Your task to perform on an android device: Go to battery settings Image 0: 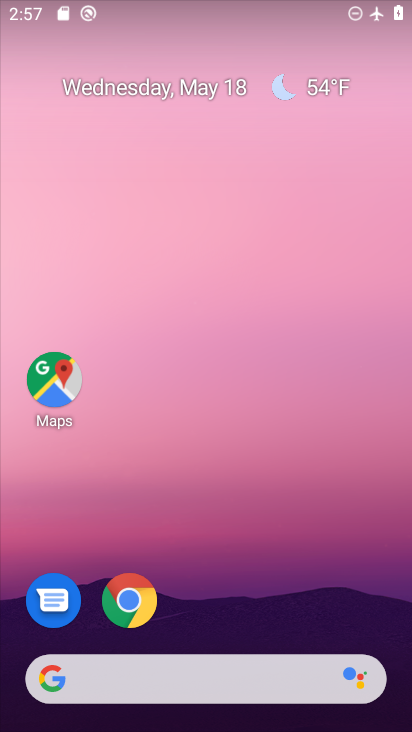
Step 0: drag from (244, 600) to (279, 11)
Your task to perform on an android device: Go to battery settings Image 1: 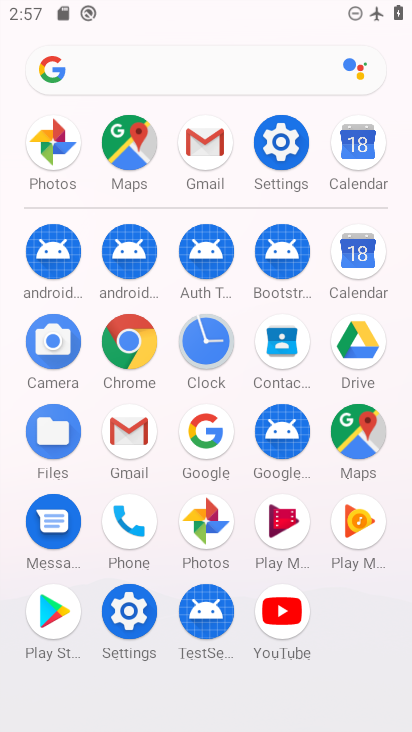
Step 1: click (283, 157)
Your task to perform on an android device: Go to battery settings Image 2: 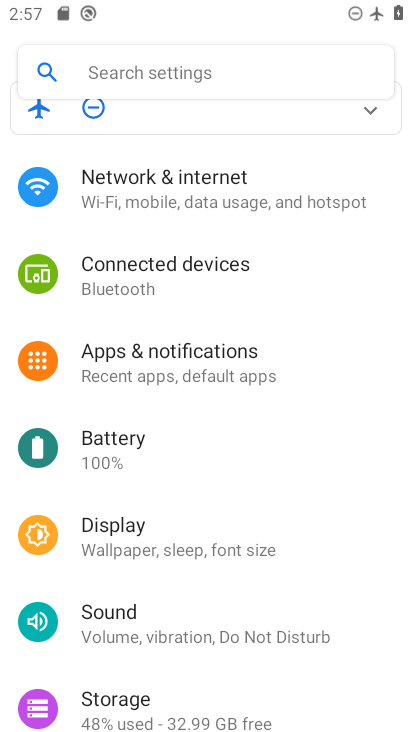
Step 2: click (179, 457)
Your task to perform on an android device: Go to battery settings Image 3: 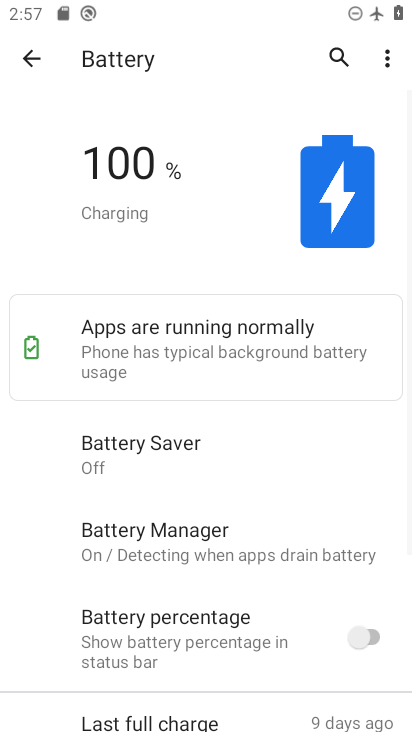
Step 3: task complete